Your task to perform on an android device: turn pop-ups on in chrome Image 0: 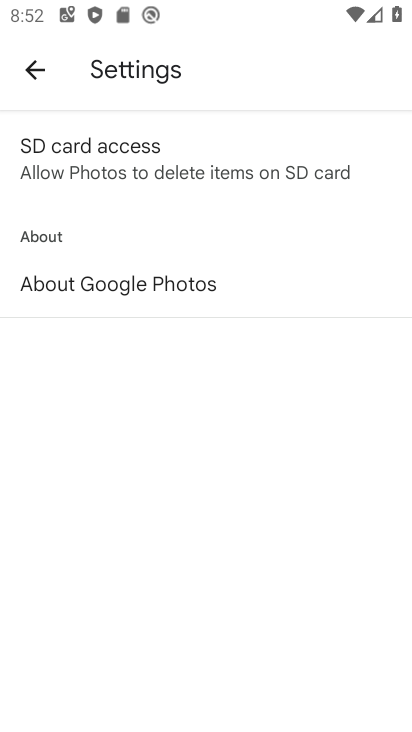
Step 0: press home button
Your task to perform on an android device: turn pop-ups on in chrome Image 1: 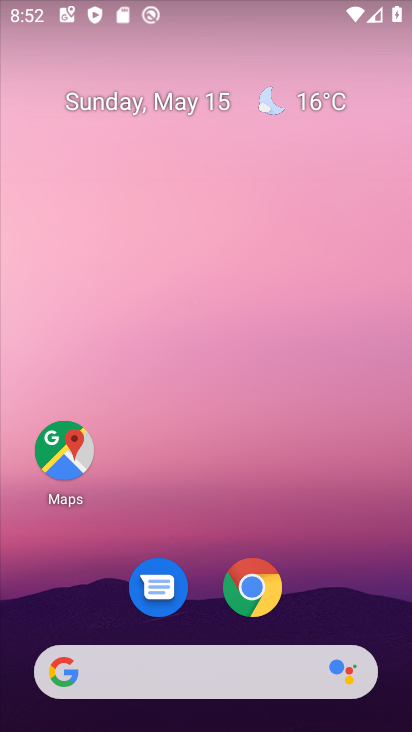
Step 1: click (264, 575)
Your task to perform on an android device: turn pop-ups on in chrome Image 2: 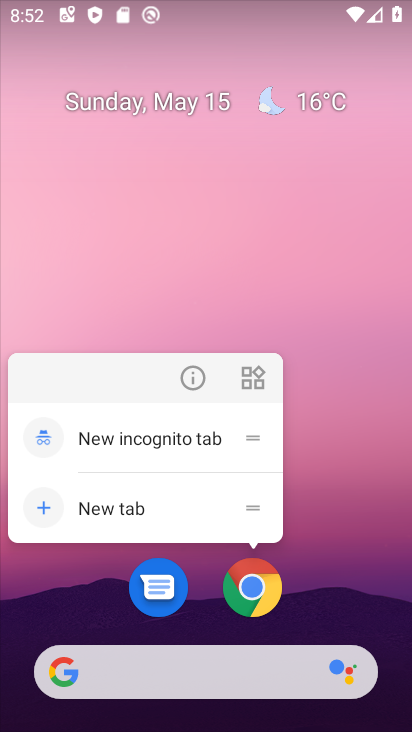
Step 2: click (250, 591)
Your task to perform on an android device: turn pop-ups on in chrome Image 3: 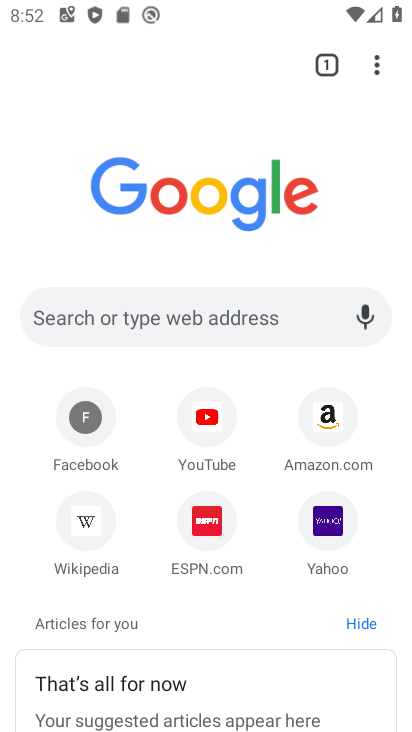
Step 3: drag from (378, 64) to (209, 551)
Your task to perform on an android device: turn pop-ups on in chrome Image 4: 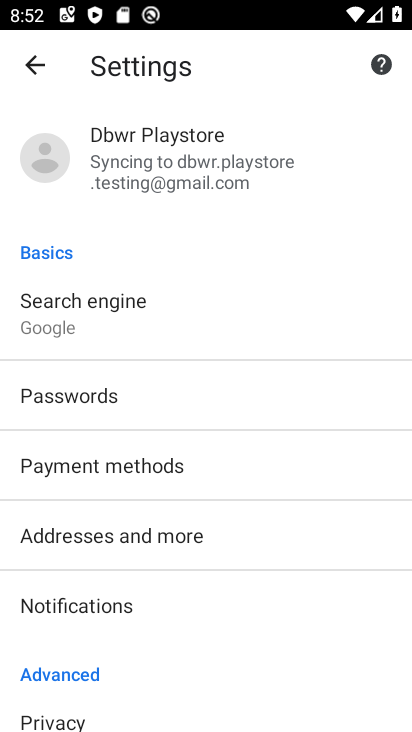
Step 4: drag from (181, 618) to (196, 173)
Your task to perform on an android device: turn pop-ups on in chrome Image 5: 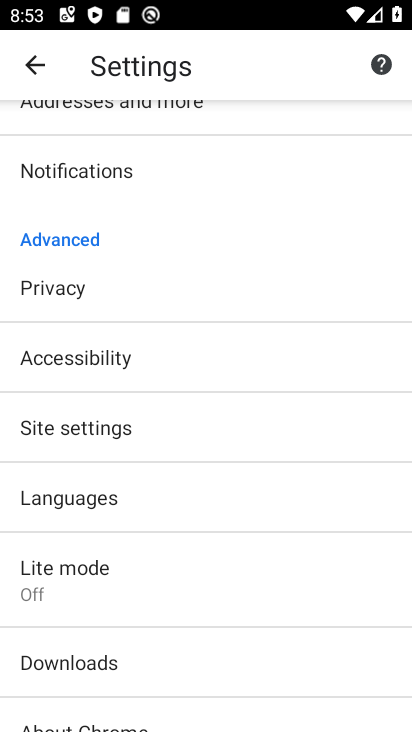
Step 5: drag from (262, 499) to (309, 295)
Your task to perform on an android device: turn pop-ups on in chrome Image 6: 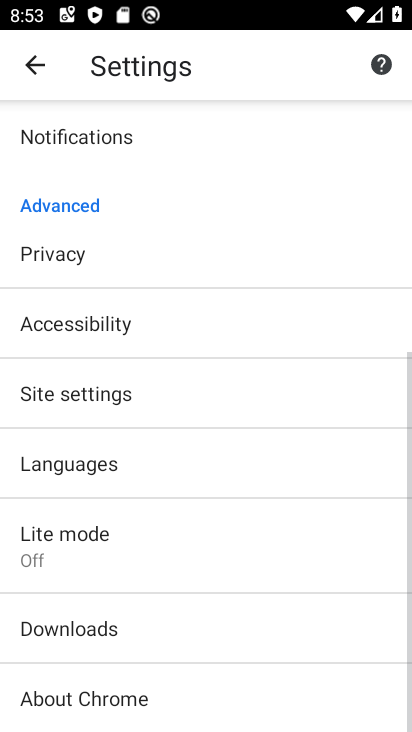
Step 6: click (144, 382)
Your task to perform on an android device: turn pop-ups on in chrome Image 7: 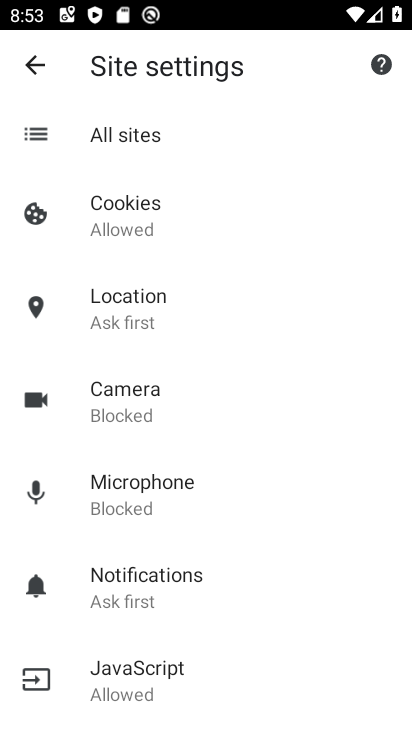
Step 7: drag from (228, 551) to (207, 197)
Your task to perform on an android device: turn pop-ups on in chrome Image 8: 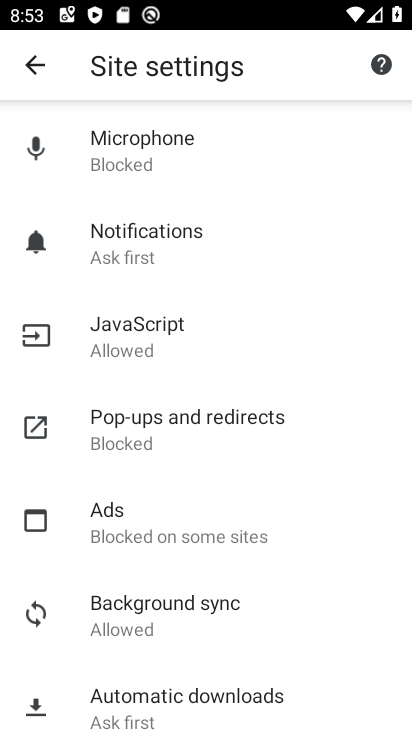
Step 8: click (201, 432)
Your task to perform on an android device: turn pop-ups on in chrome Image 9: 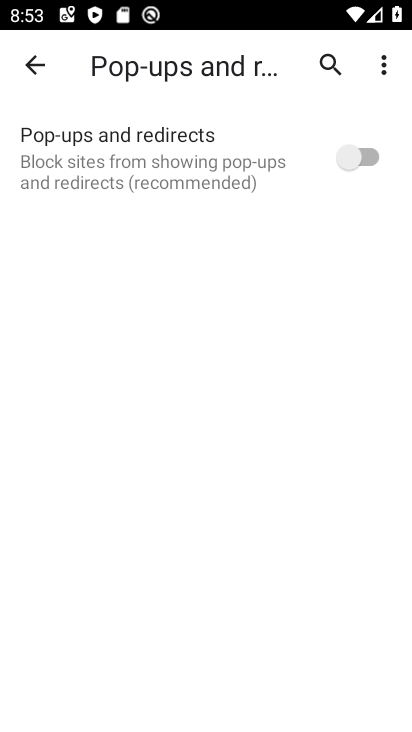
Step 9: click (339, 157)
Your task to perform on an android device: turn pop-ups on in chrome Image 10: 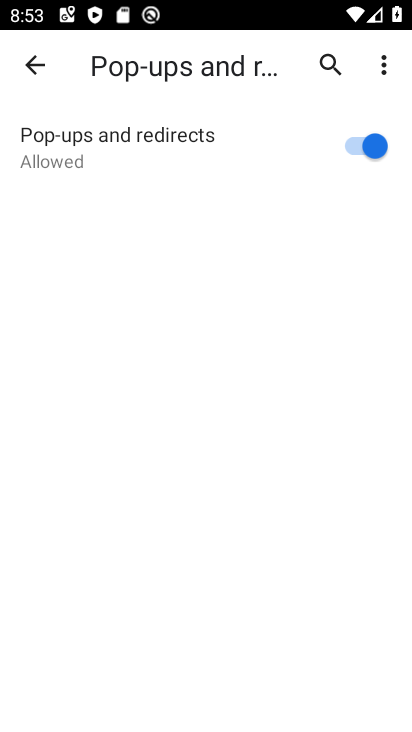
Step 10: task complete